Your task to perform on an android device: Open my contact list Image 0: 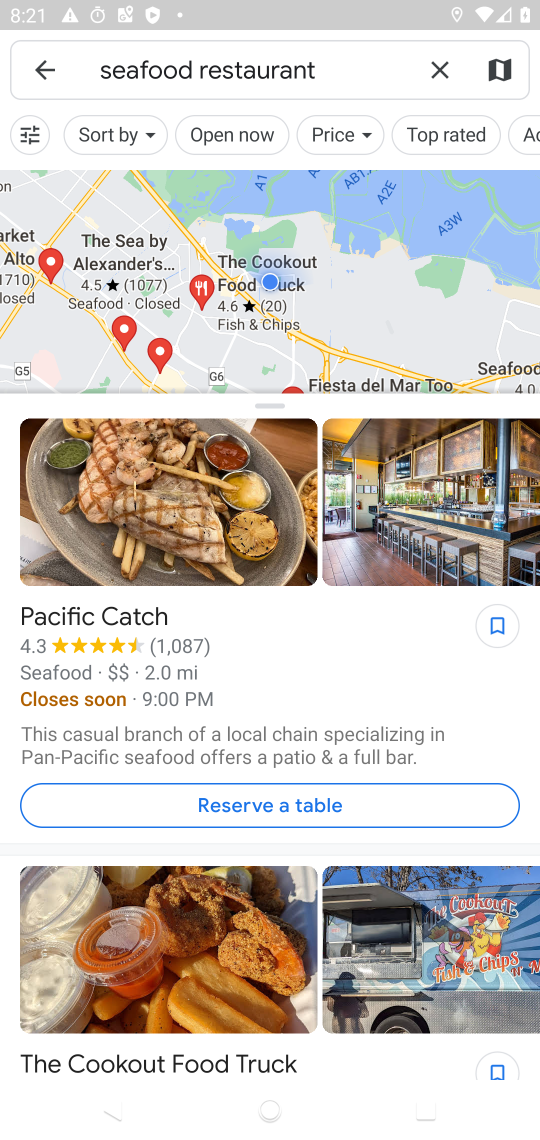
Step 0: press home button
Your task to perform on an android device: Open my contact list Image 1: 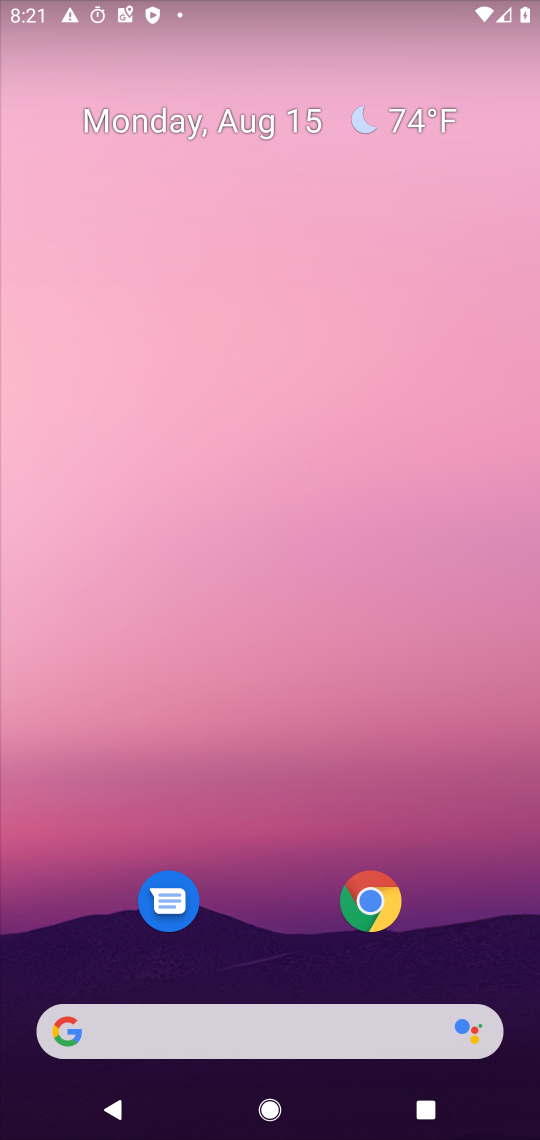
Step 1: drag from (199, 929) to (196, 274)
Your task to perform on an android device: Open my contact list Image 2: 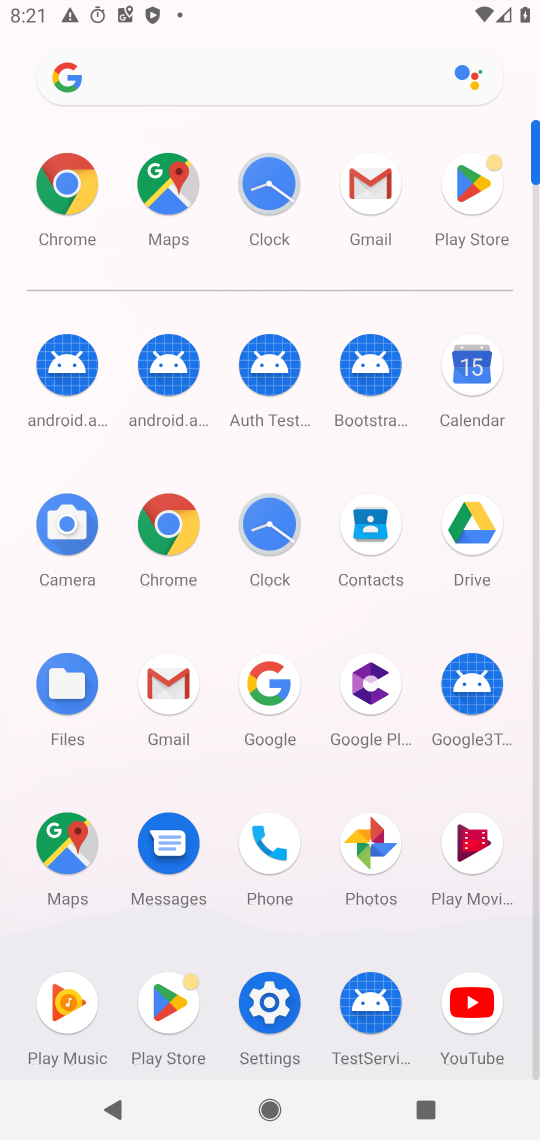
Step 2: click (376, 558)
Your task to perform on an android device: Open my contact list Image 3: 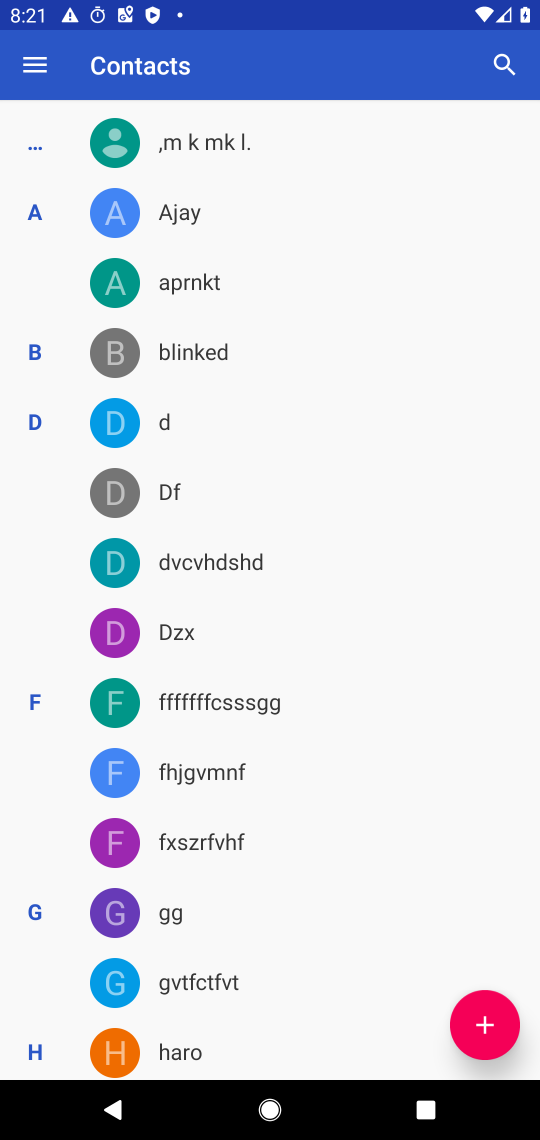
Step 3: task complete